Your task to perform on an android device: Check the weather Image 0: 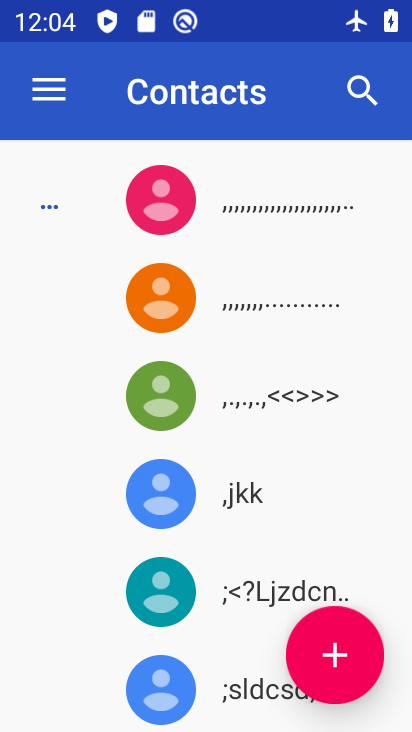
Step 0: press home button
Your task to perform on an android device: Check the weather Image 1: 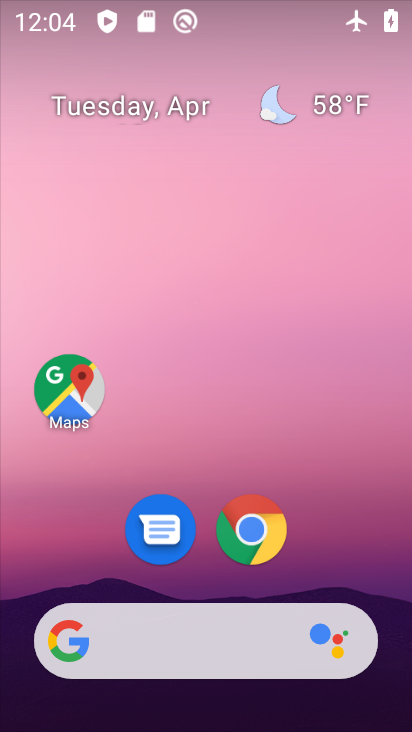
Step 1: drag from (377, 598) to (216, 152)
Your task to perform on an android device: Check the weather Image 2: 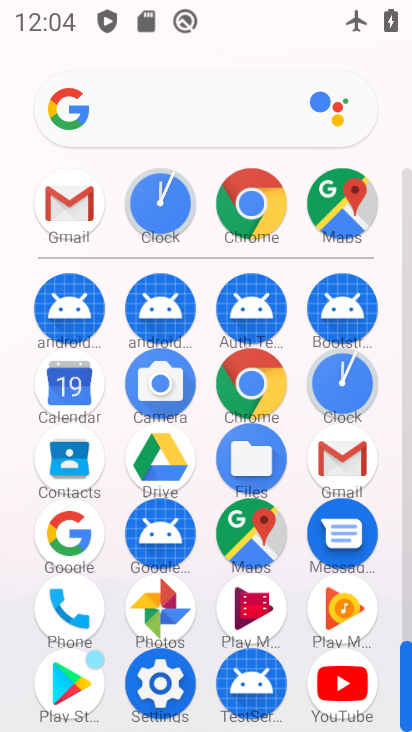
Step 2: press home button
Your task to perform on an android device: Check the weather Image 3: 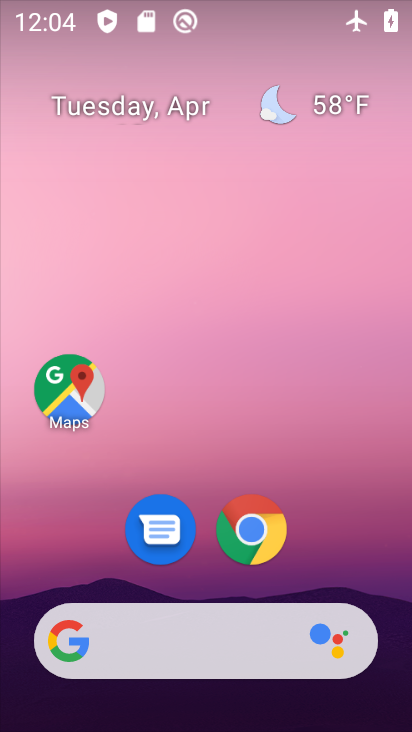
Step 3: click (312, 101)
Your task to perform on an android device: Check the weather Image 4: 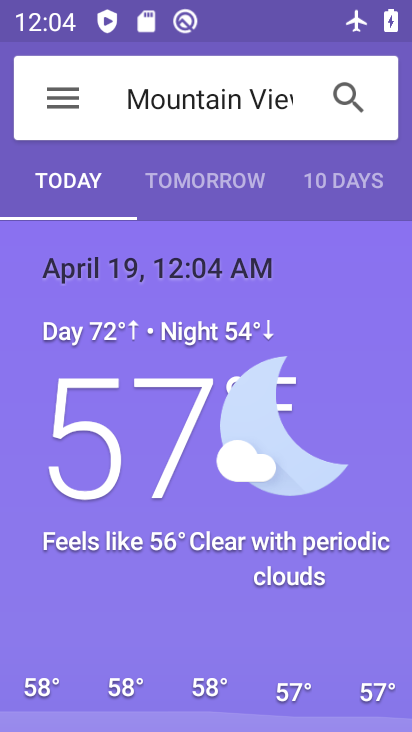
Step 4: task complete